Your task to perform on an android device: What's the weather going to be this weekend? Image 0: 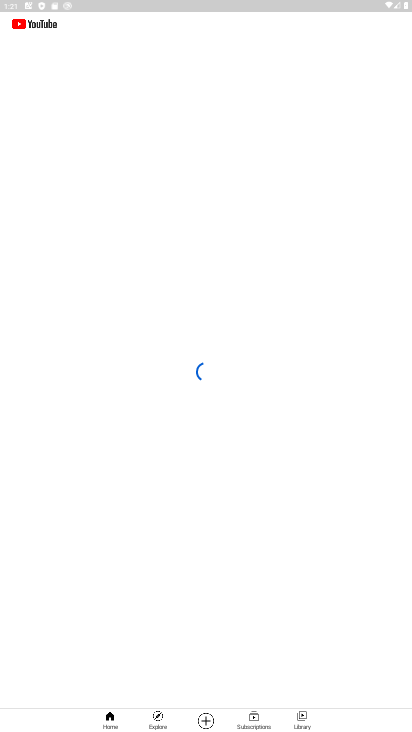
Step 0: press home button
Your task to perform on an android device: What's the weather going to be this weekend? Image 1: 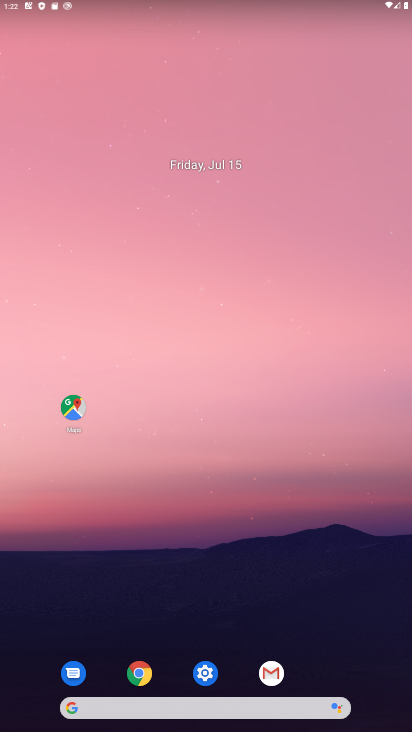
Step 1: click (135, 706)
Your task to perform on an android device: What's the weather going to be this weekend? Image 2: 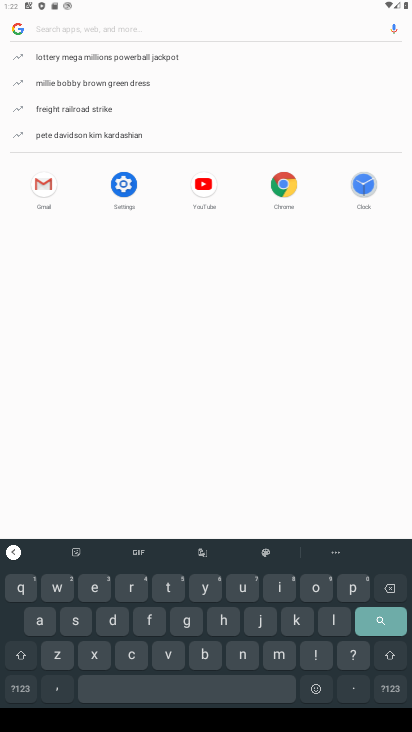
Step 2: click (58, 582)
Your task to perform on an android device: What's the weather going to be this weekend? Image 3: 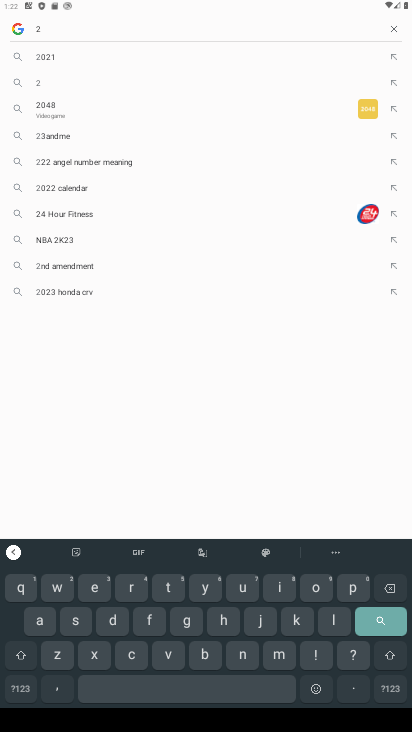
Step 3: click (391, 582)
Your task to perform on an android device: What's the weather going to be this weekend? Image 4: 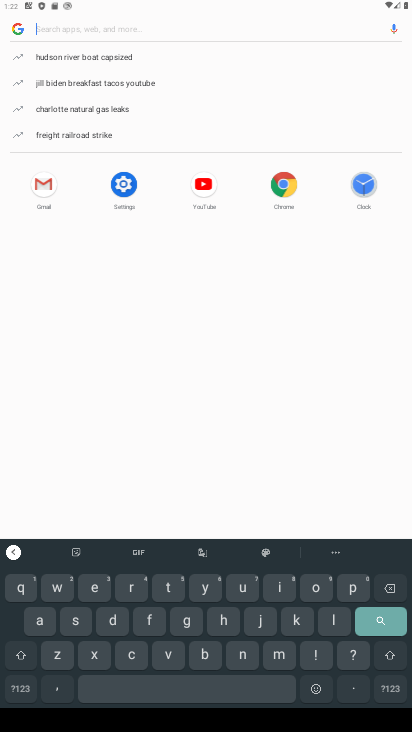
Step 4: click (57, 583)
Your task to perform on an android device: What's the weather going to be this weekend? Image 5: 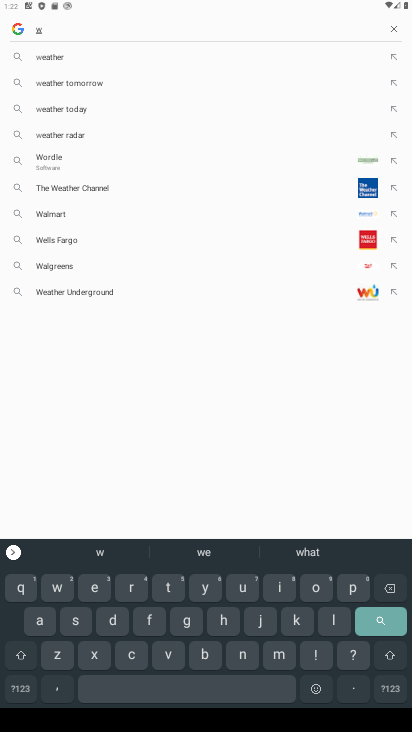
Step 5: click (93, 587)
Your task to perform on an android device: What's the weather going to be this weekend? Image 6: 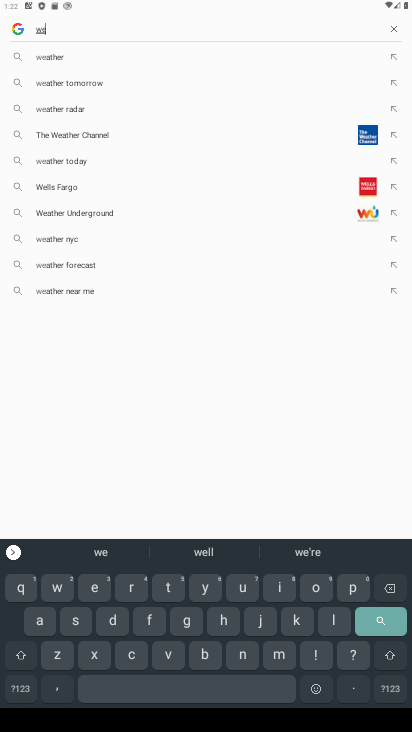
Step 6: click (57, 53)
Your task to perform on an android device: What's the weather going to be this weekend? Image 7: 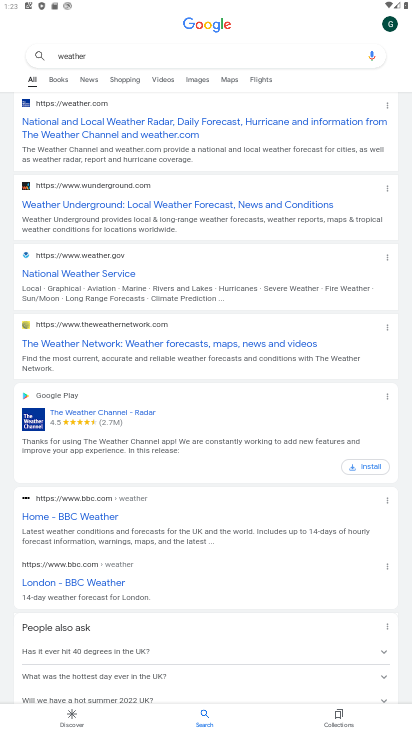
Step 7: task complete